Your task to perform on an android device: change notification settings in the gmail app Image 0: 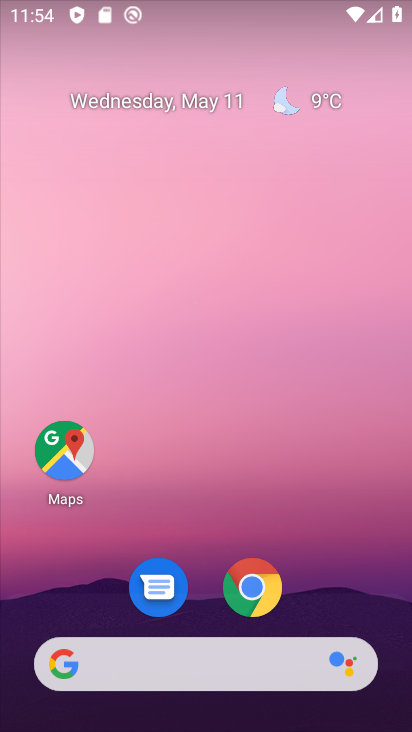
Step 0: drag from (335, 616) to (311, 236)
Your task to perform on an android device: change notification settings in the gmail app Image 1: 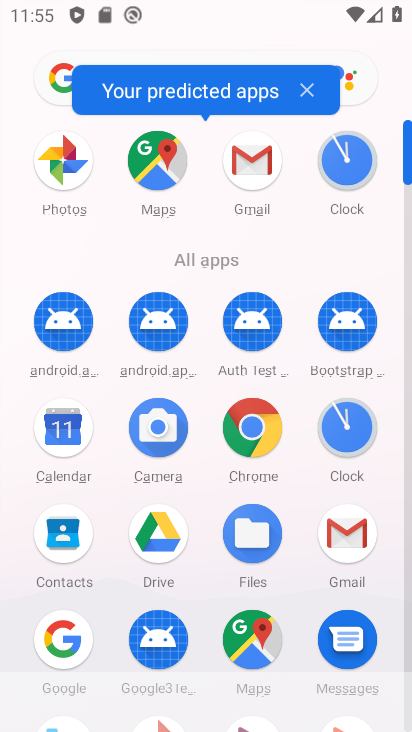
Step 1: click (250, 155)
Your task to perform on an android device: change notification settings in the gmail app Image 2: 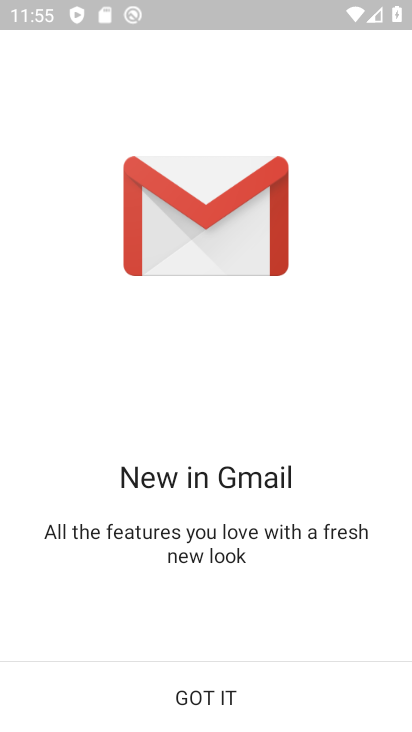
Step 2: click (199, 695)
Your task to perform on an android device: change notification settings in the gmail app Image 3: 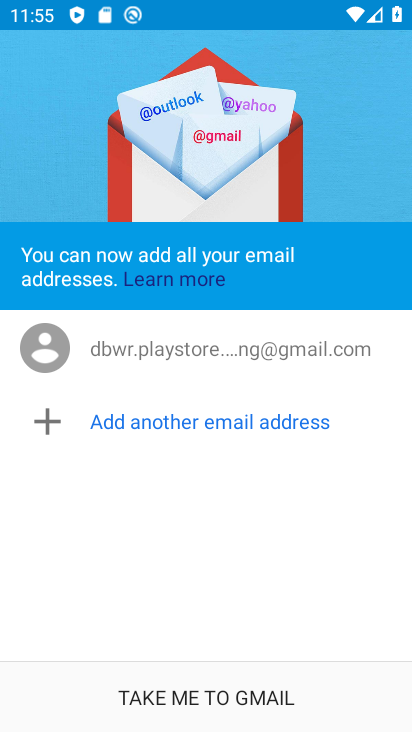
Step 3: click (171, 707)
Your task to perform on an android device: change notification settings in the gmail app Image 4: 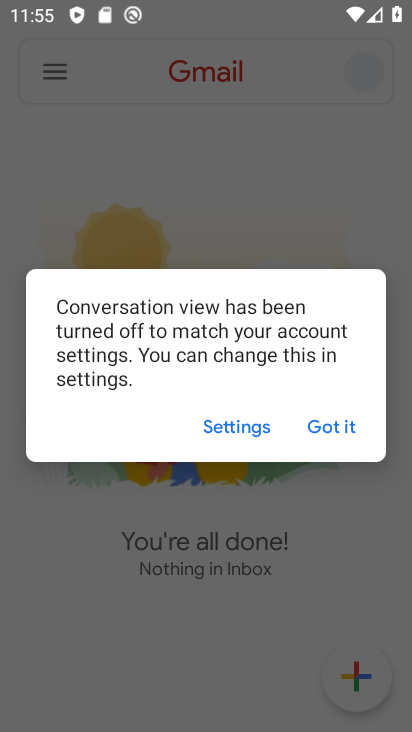
Step 4: click (327, 431)
Your task to perform on an android device: change notification settings in the gmail app Image 5: 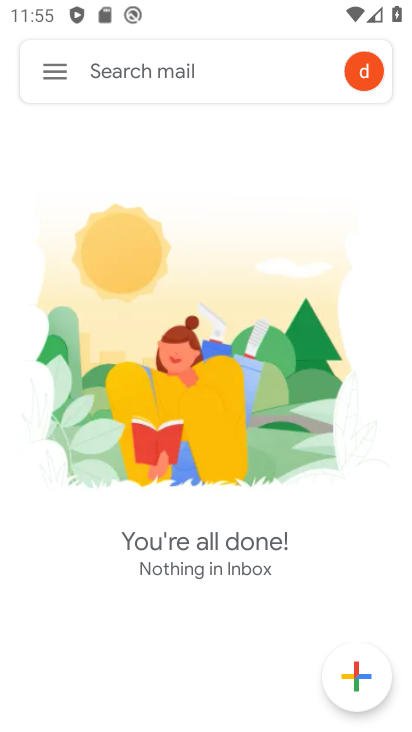
Step 5: click (50, 75)
Your task to perform on an android device: change notification settings in the gmail app Image 6: 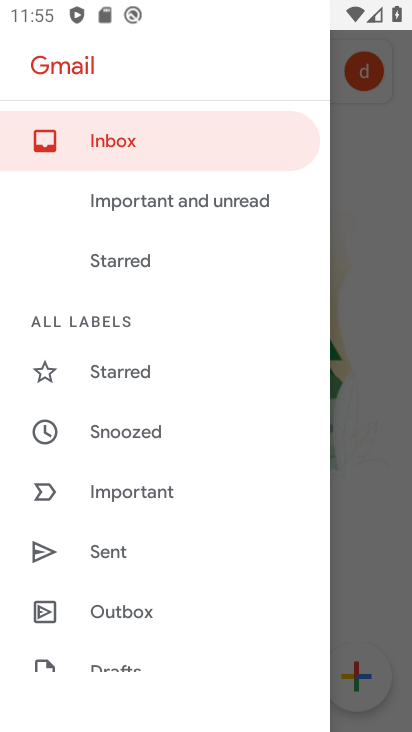
Step 6: drag from (172, 582) to (228, 213)
Your task to perform on an android device: change notification settings in the gmail app Image 7: 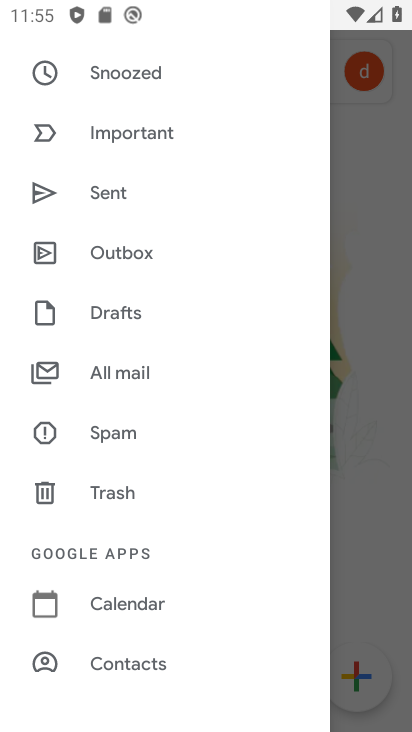
Step 7: drag from (137, 558) to (228, 224)
Your task to perform on an android device: change notification settings in the gmail app Image 8: 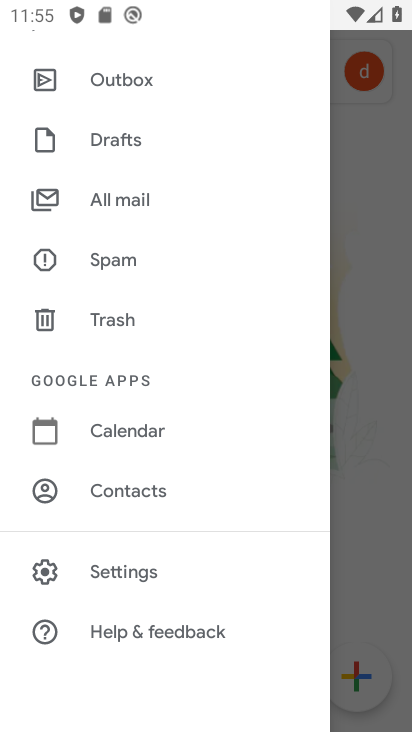
Step 8: click (159, 570)
Your task to perform on an android device: change notification settings in the gmail app Image 9: 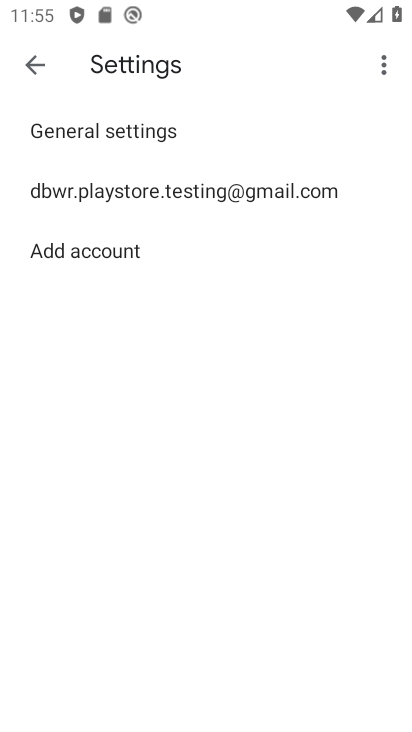
Step 9: click (172, 184)
Your task to perform on an android device: change notification settings in the gmail app Image 10: 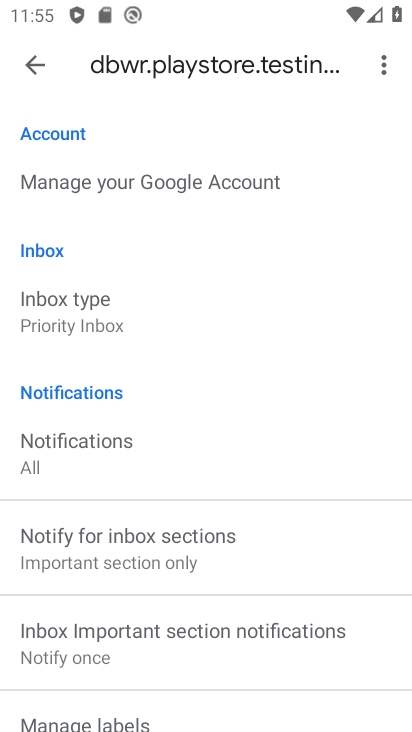
Step 10: click (55, 451)
Your task to perform on an android device: change notification settings in the gmail app Image 11: 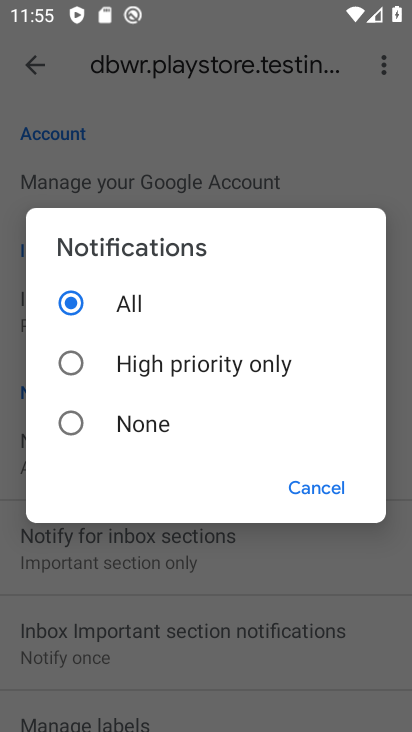
Step 11: click (122, 413)
Your task to perform on an android device: change notification settings in the gmail app Image 12: 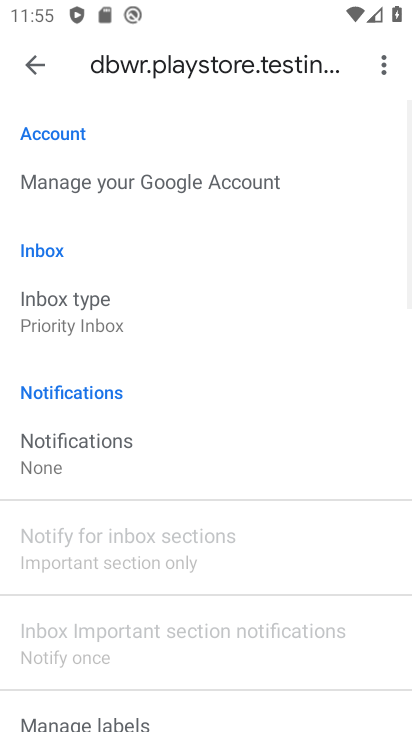
Step 12: task complete